Your task to perform on an android device: open a bookmark in the chrome app Image 0: 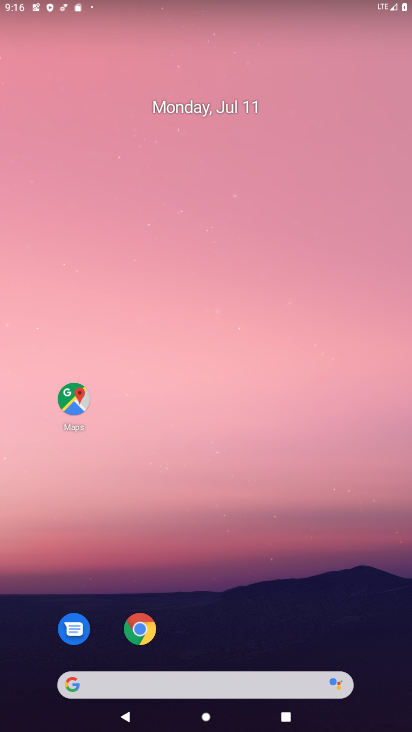
Step 0: click (158, 630)
Your task to perform on an android device: open a bookmark in the chrome app Image 1: 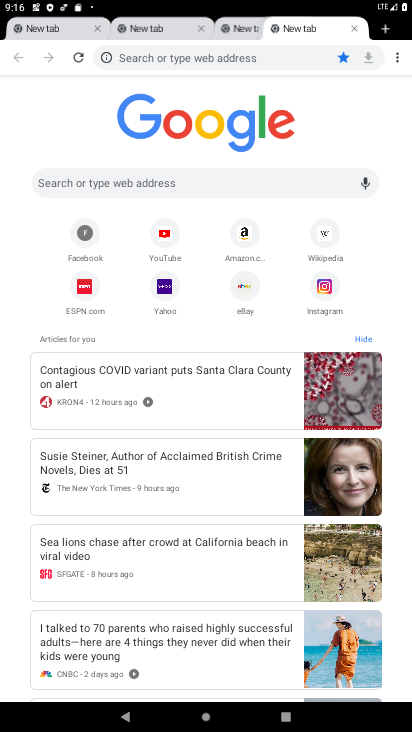
Step 1: click (398, 53)
Your task to perform on an android device: open a bookmark in the chrome app Image 2: 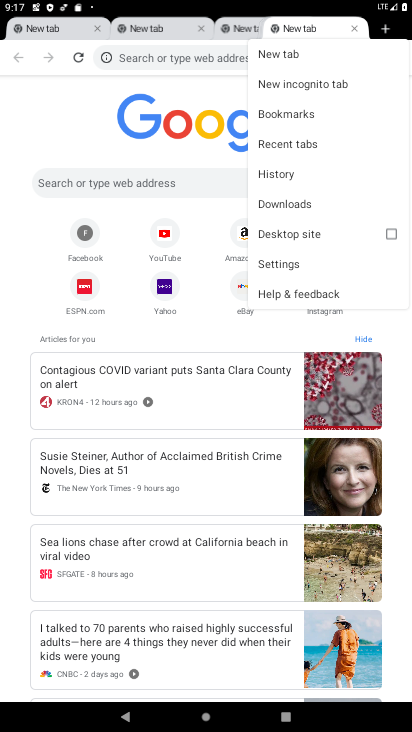
Step 2: click (271, 114)
Your task to perform on an android device: open a bookmark in the chrome app Image 3: 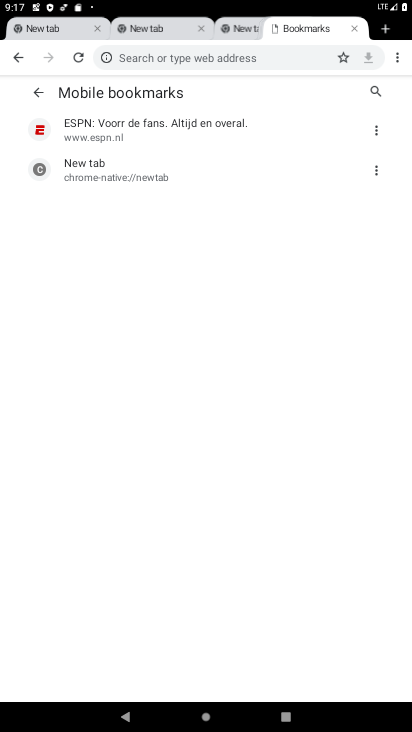
Step 3: task complete